Your task to perform on an android device: check the backup settings in the google photos Image 0: 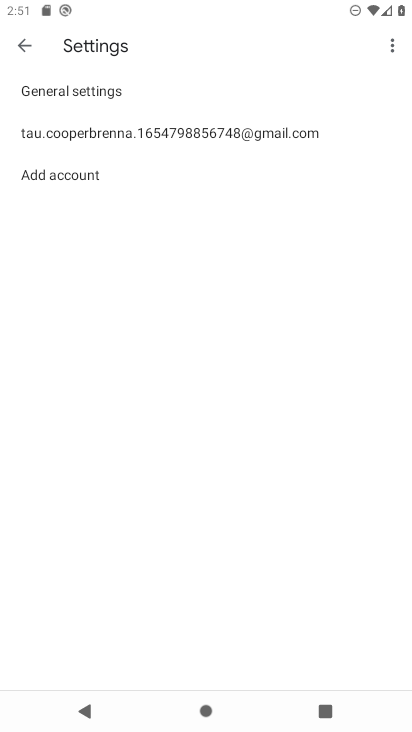
Step 0: press home button
Your task to perform on an android device: check the backup settings in the google photos Image 1: 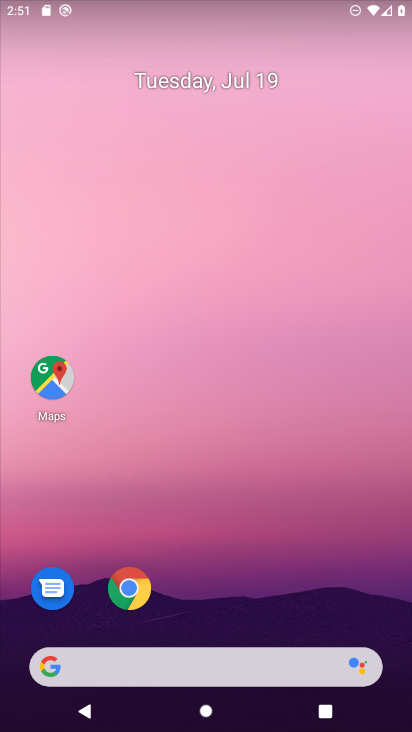
Step 1: drag from (208, 368) to (208, 170)
Your task to perform on an android device: check the backup settings in the google photos Image 2: 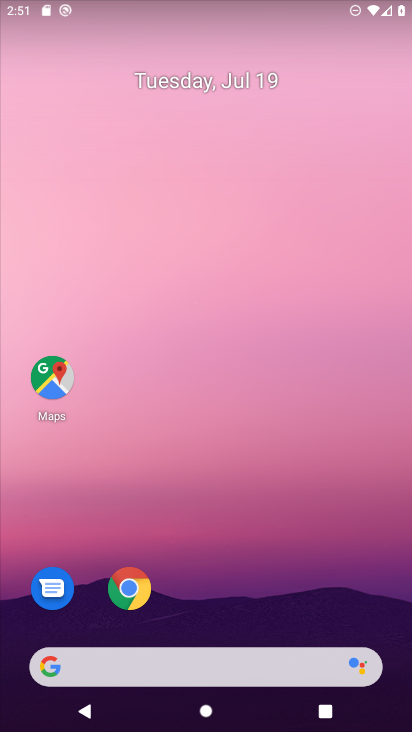
Step 2: drag from (184, 620) to (180, 16)
Your task to perform on an android device: check the backup settings in the google photos Image 3: 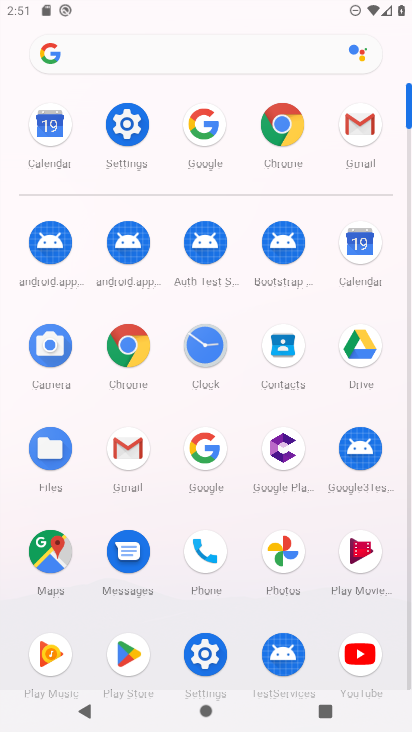
Step 3: click (287, 550)
Your task to perform on an android device: check the backup settings in the google photos Image 4: 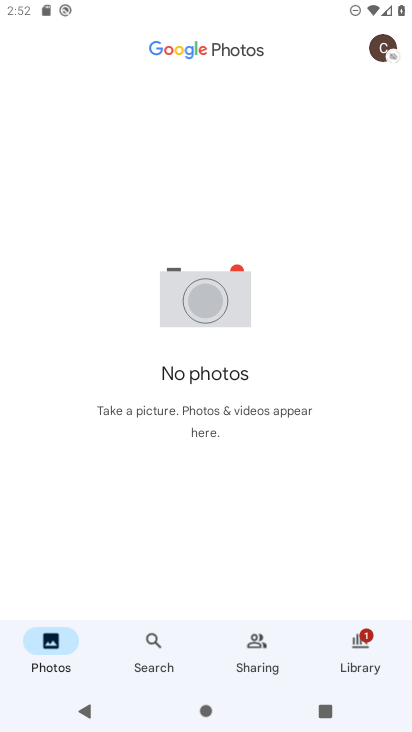
Step 4: click (378, 45)
Your task to perform on an android device: check the backup settings in the google photos Image 5: 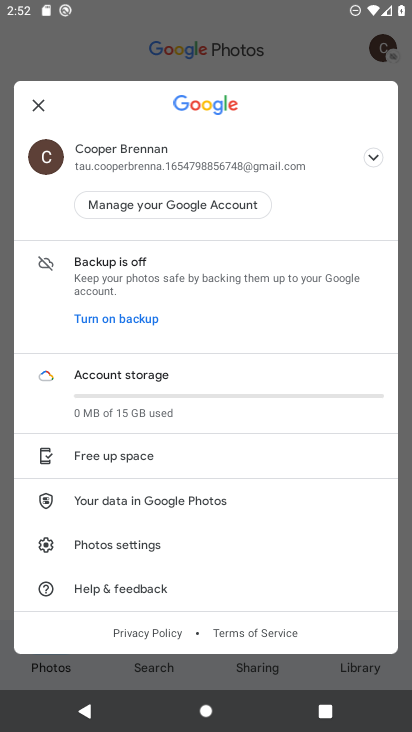
Step 5: click (89, 544)
Your task to perform on an android device: check the backup settings in the google photos Image 6: 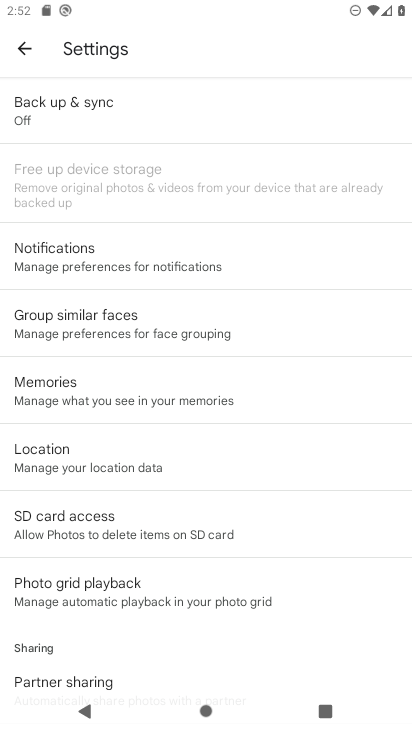
Step 6: click (89, 119)
Your task to perform on an android device: check the backup settings in the google photos Image 7: 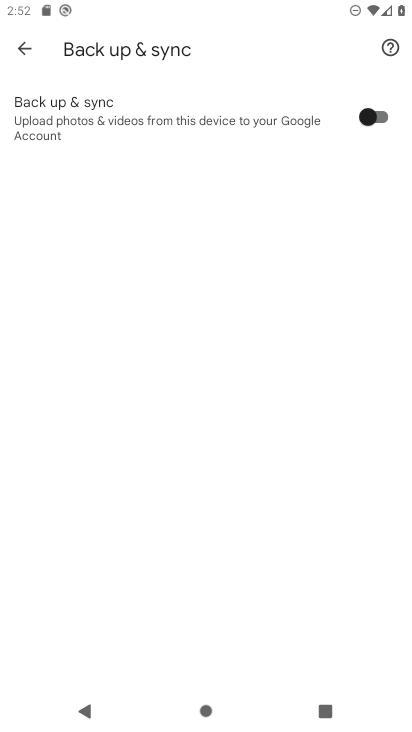
Step 7: click (387, 119)
Your task to perform on an android device: check the backup settings in the google photos Image 8: 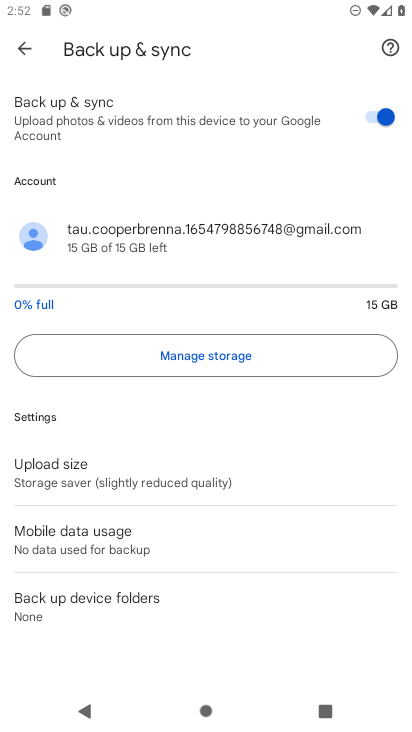
Step 8: click (70, 478)
Your task to perform on an android device: check the backup settings in the google photos Image 9: 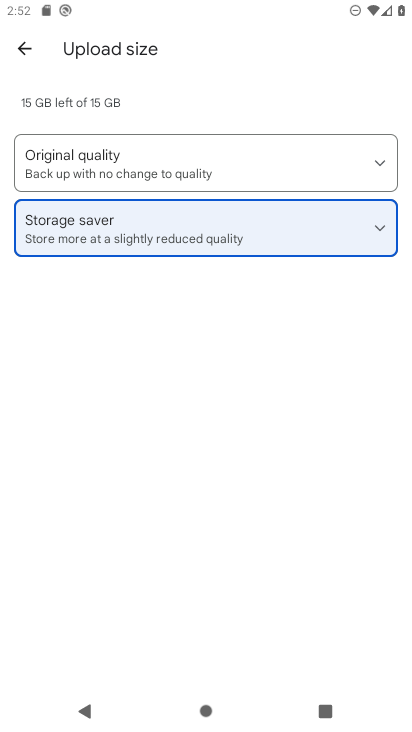
Step 9: click (188, 165)
Your task to perform on an android device: check the backup settings in the google photos Image 10: 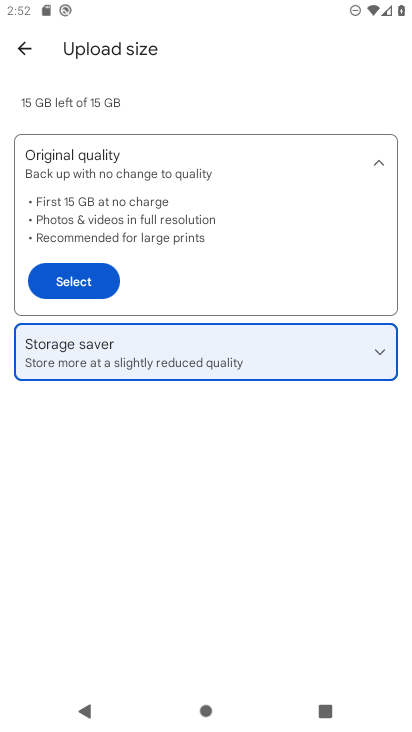
Step 10: click (74, 274)
Your task to perform on an android device: check the backup settings in the google photos Image 11: 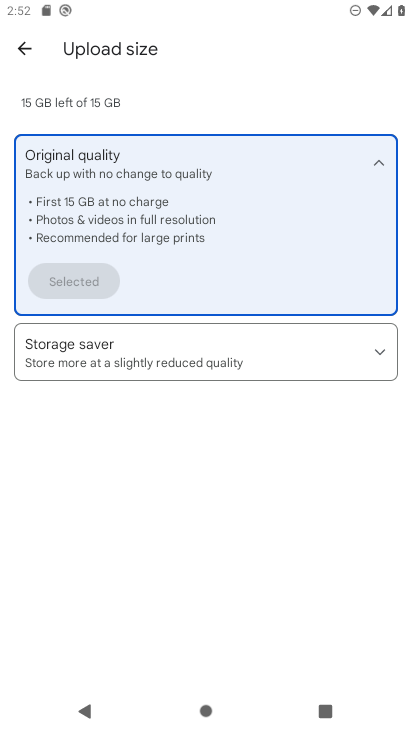
Step 11: task complete